Your task to perform on an android device: delete location history Image 0: 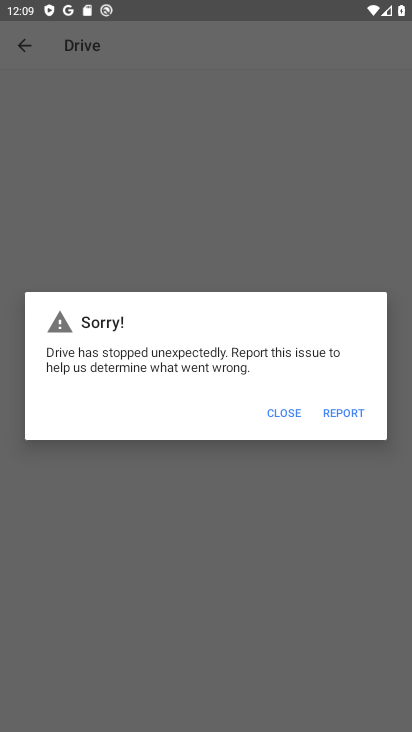
Step 0: press home button
Your task to perform on an android device: delete location history Image 1: 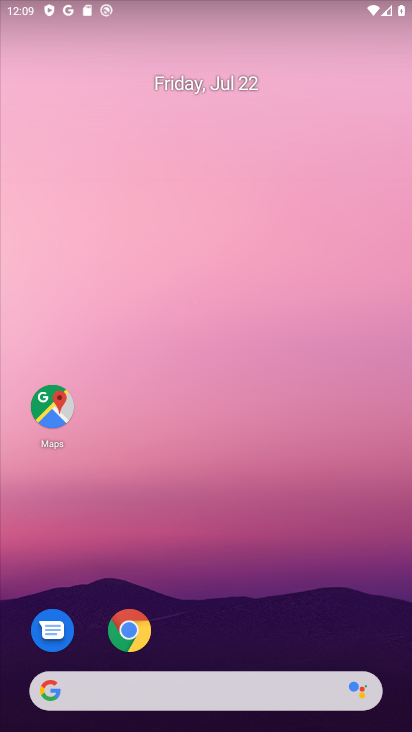
Step 1: drag from (200, 650) to (222, 43)
Your task to perform on an android device: delete location history Image 2: 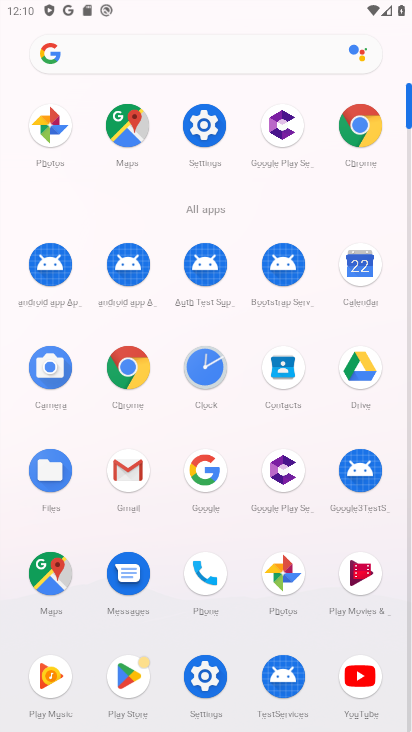
Step 2: click (203, 124)
Your task to perform on an android device: delete location history Image 3: 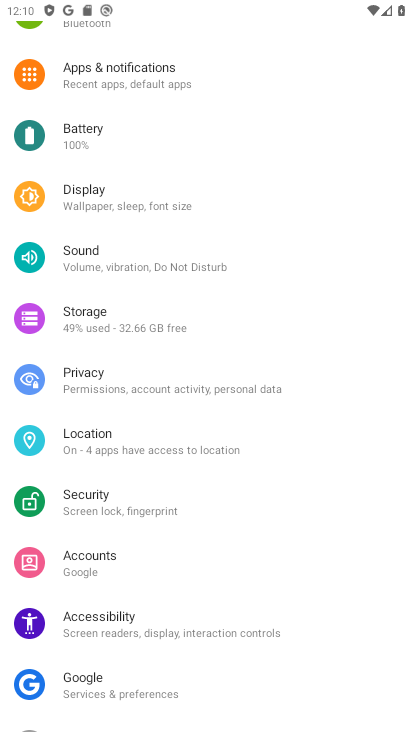
Step 3: click (127, 449)
Your task to perform on an android device: delete location history Image 4: 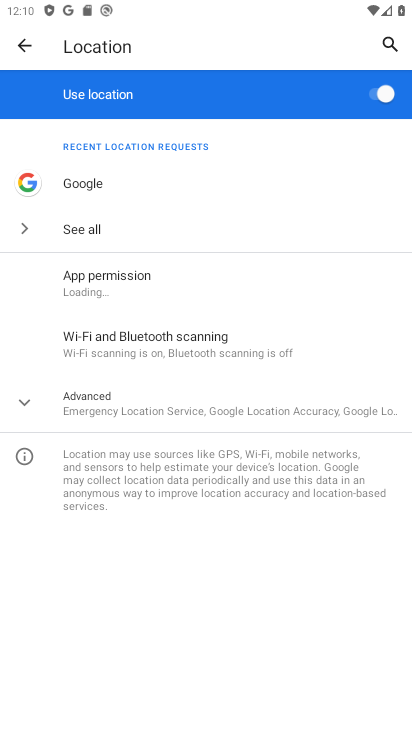
Step 4: click (109, 394)
Your task to perform on an android device: delete location history Image 5: 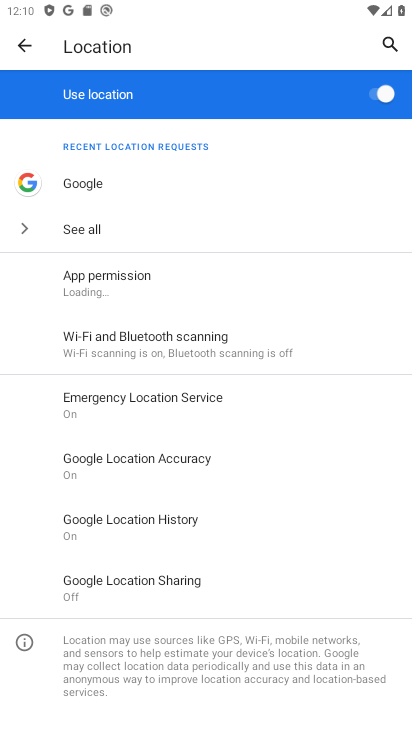
Step 5: click (156, 532)
Your task to perform on an android device: delete location history Image 6: 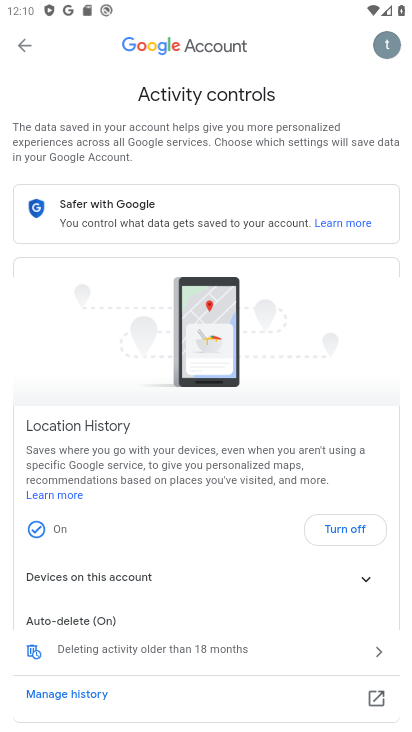
Step 6: click (32, 650)
Your task to perform on an android device: delete location history Image 7: 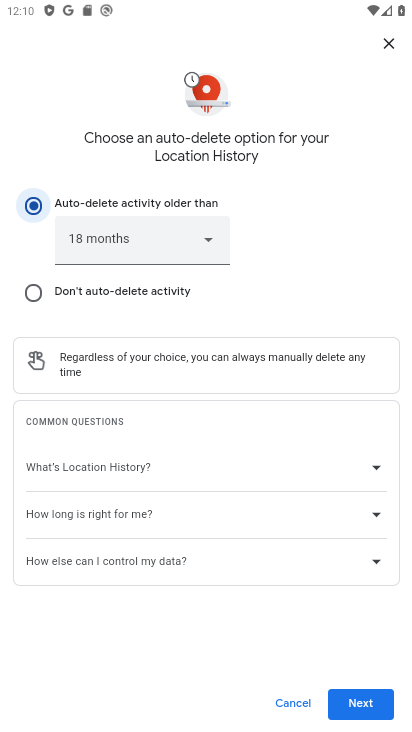
Step 7: click (356, 700)
Your task to perform on an android device: delete location history Image 8: 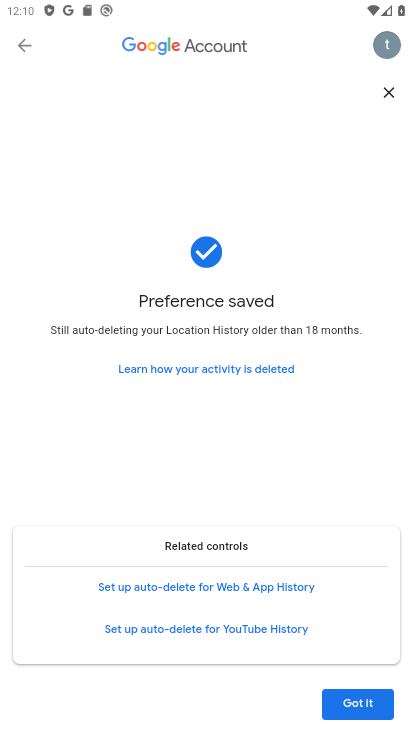
Step 8: click (356, 700)
Your task to perform on an android device: delete location history Image 9: 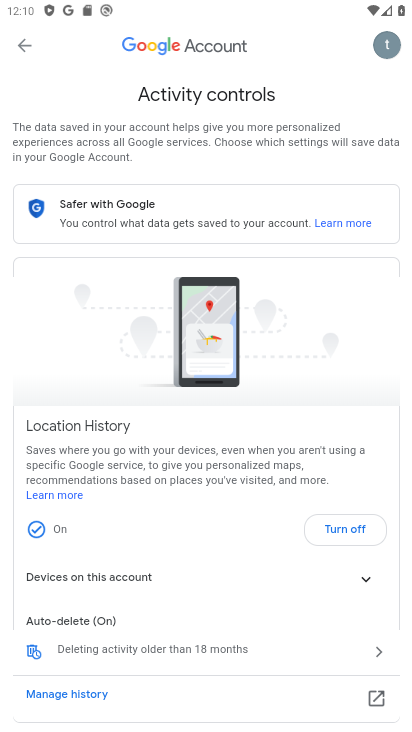
Step 9: click (356, 700)
Your task to perform on an android device: delete location history Image 10: 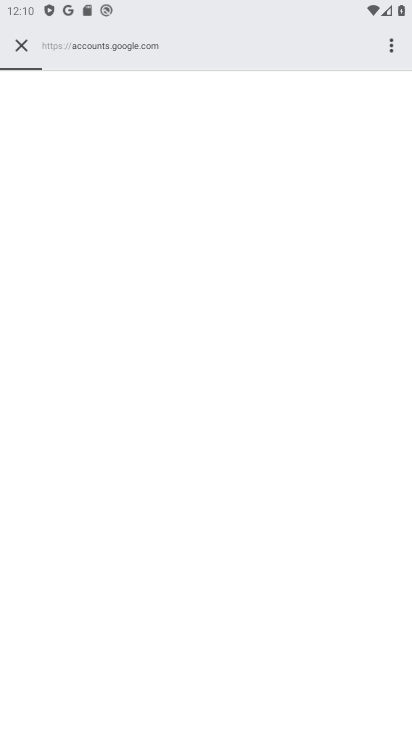
Step 10: task complete